Your task to perform on an android device: change timer sound Image 0: 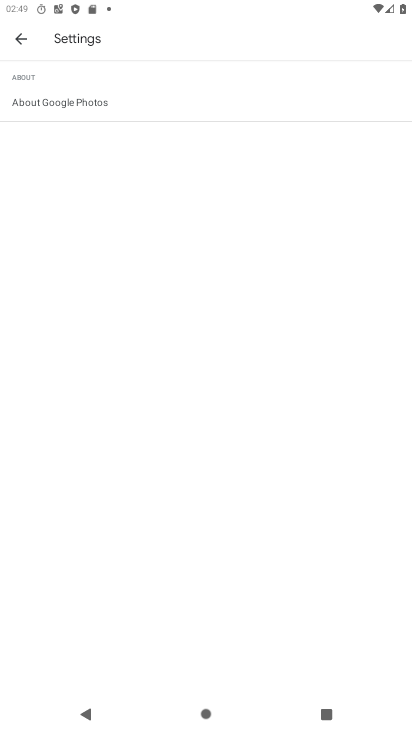
Step 0: press home button
Your task to perform on an android device: change timer sound Image 1: 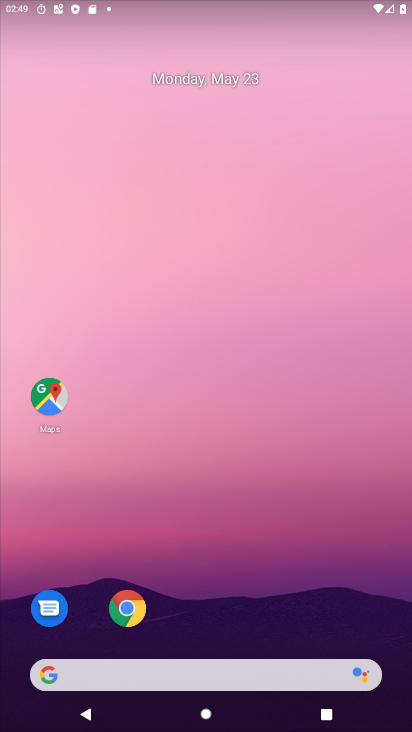
Step 1: drag from (218, 626) to (285, 58)
Your task to perform on an android device: change timer sound Image 2: 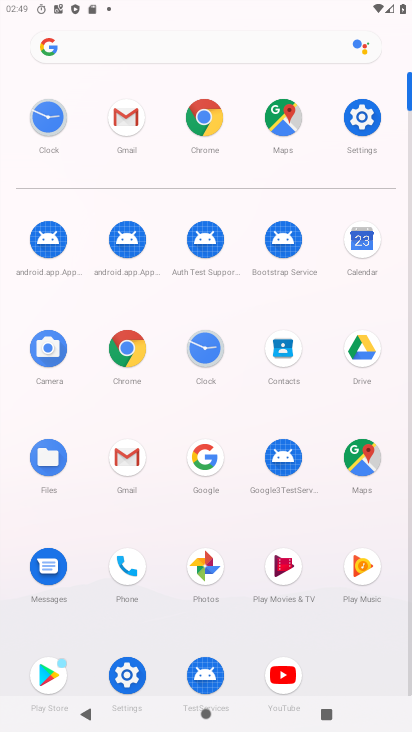
Step 2: click (128, 660)
Your task to perform on an android device: change timer sound Image 3: 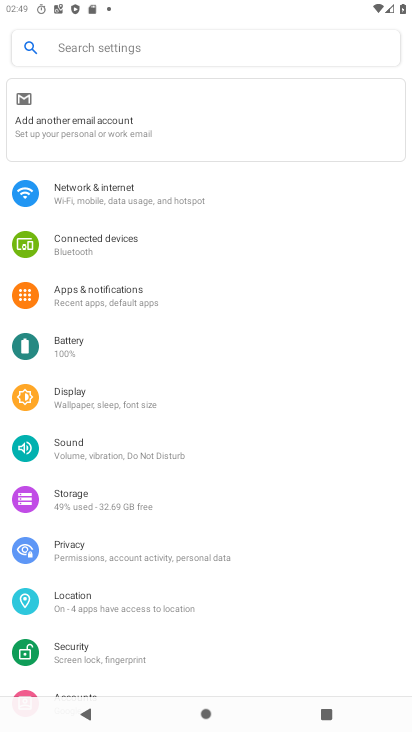
Step 3: press home button
Your task to perform on an android device: change timer sound Image 4: 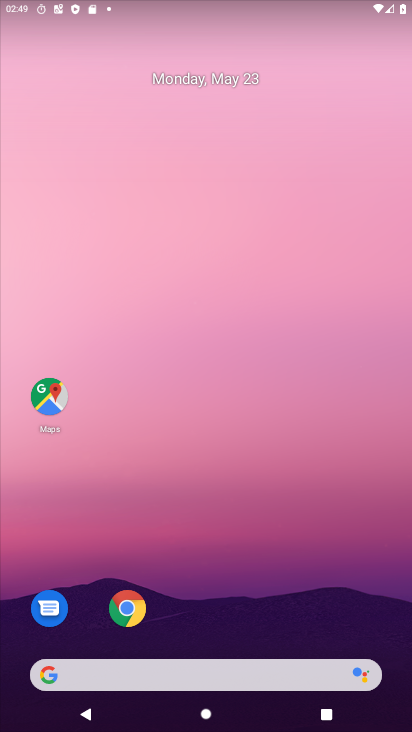
Step 4: drag from (219, 604) to (248, 52)
Your task to perform on an android device: change timer sound Image 5: 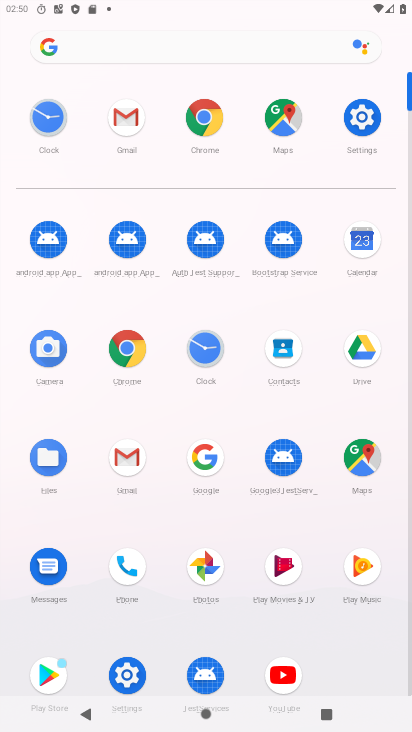
Step 5: click (210, 344)
Your task to perform on an android device: change timer sound Image 6: 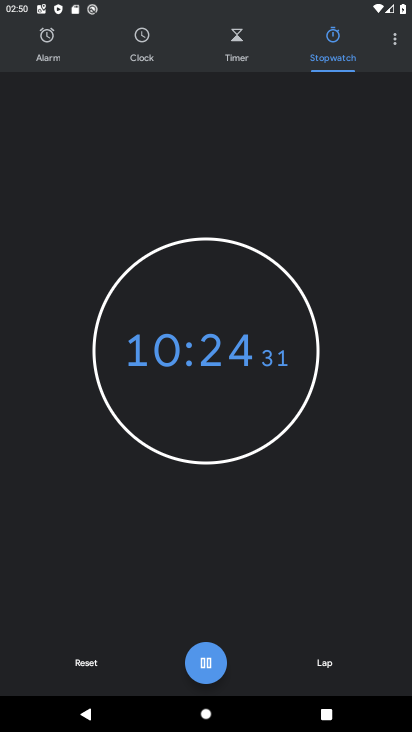
Step 6: click (74, 666)
Your task to perform on an android device: change timer sound Image 7: 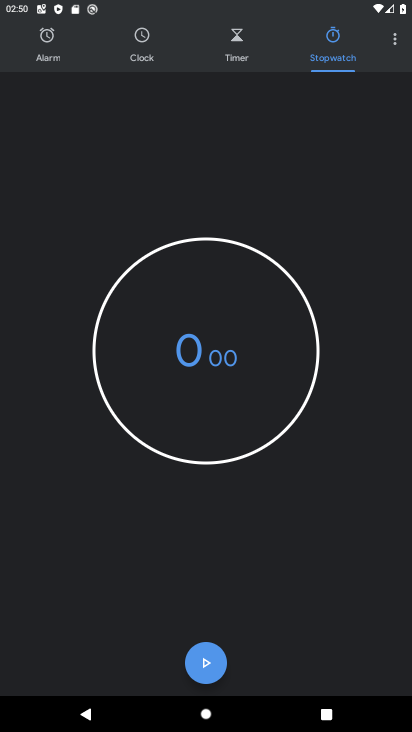
Step 7: click (397, 49)
Your task to perform on an android device: change timer sound Image 8: 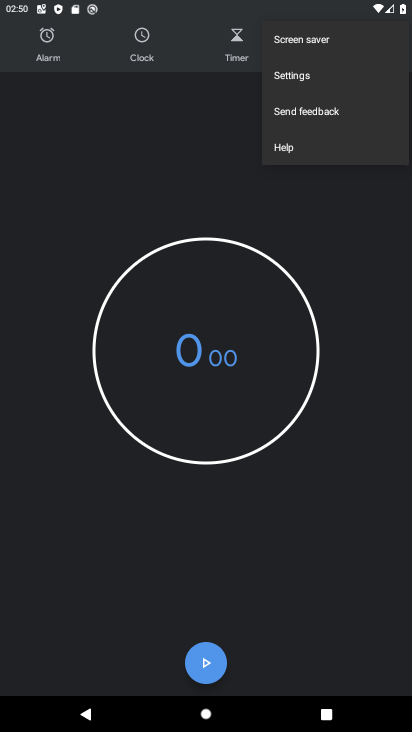
Step 8: click (306, 75)
Your task to perform on an android device: change timer sound Image 9: 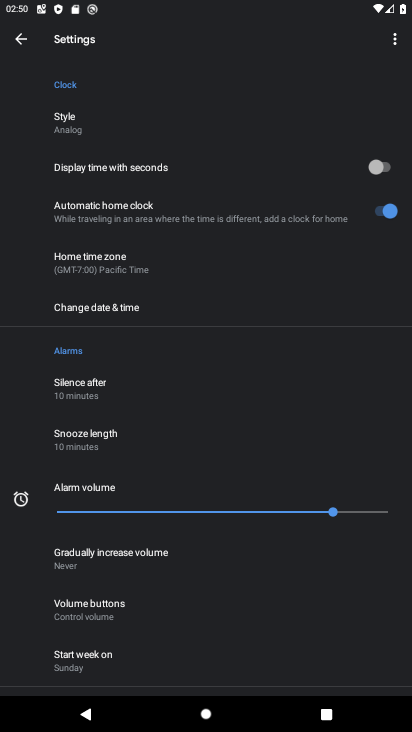
Step 9: drag from (110, 557) to (182, 250)
Your task to perform on an android device: change timer sound Image 10: 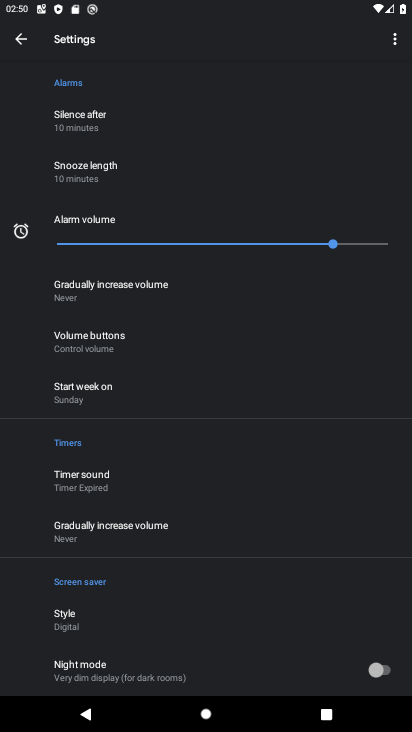
Step 10: click (115, 489)
Your task to perform on an android device: change timer sound Image 11: 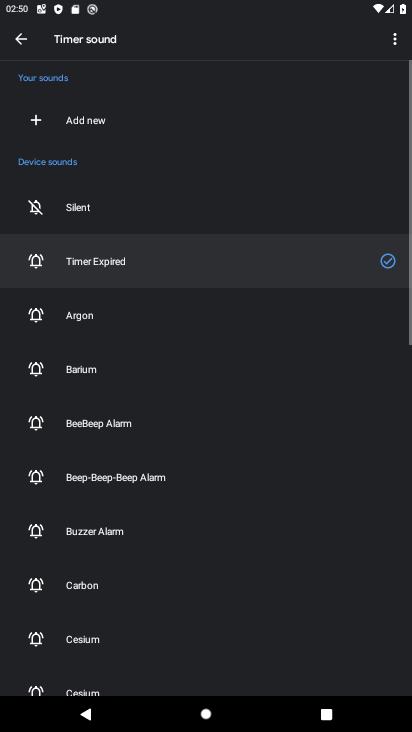
Step 11: click (88, 428)
Your task to perform on an android device: change timer sound Image 12: 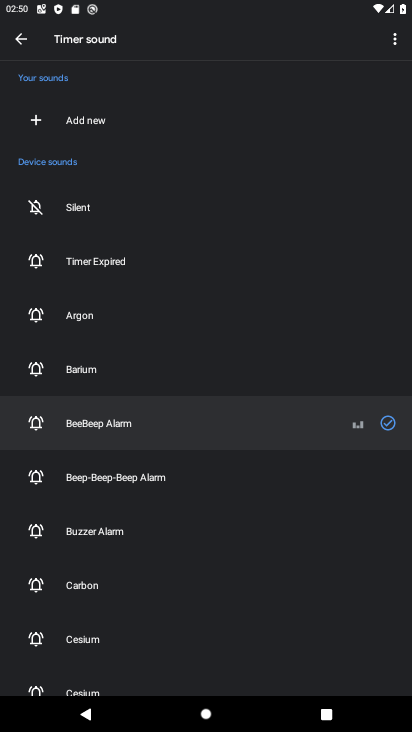
Step 12: task complete